Your task to perform on an android device: open app "Nova Launcher" (install if not already installed) Image 0: 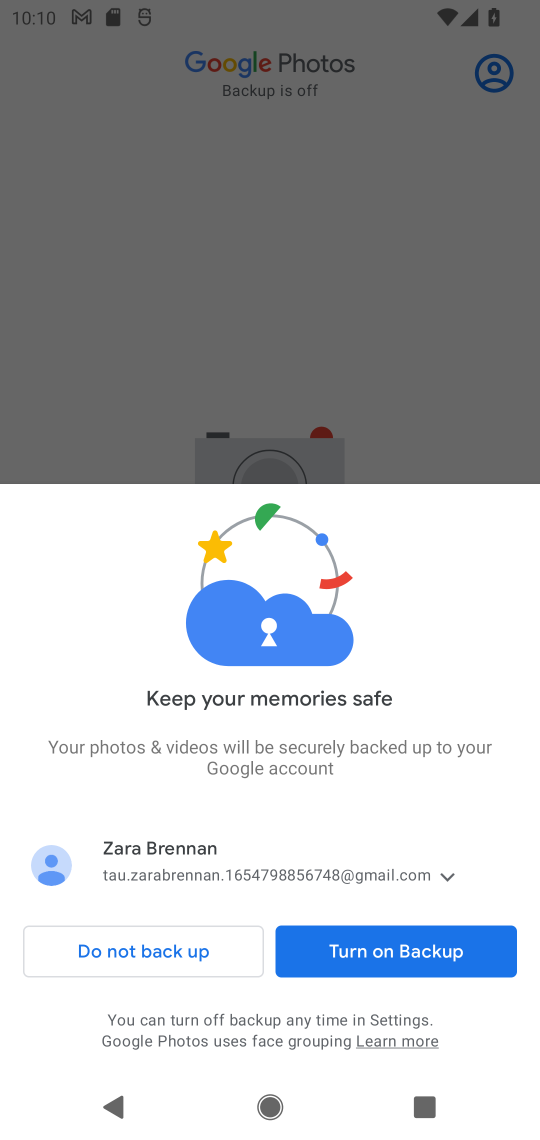
Step 0: press home button
Your task to perform on an android device: open app "Nova Launcher" (install if not already installed) Image 1: 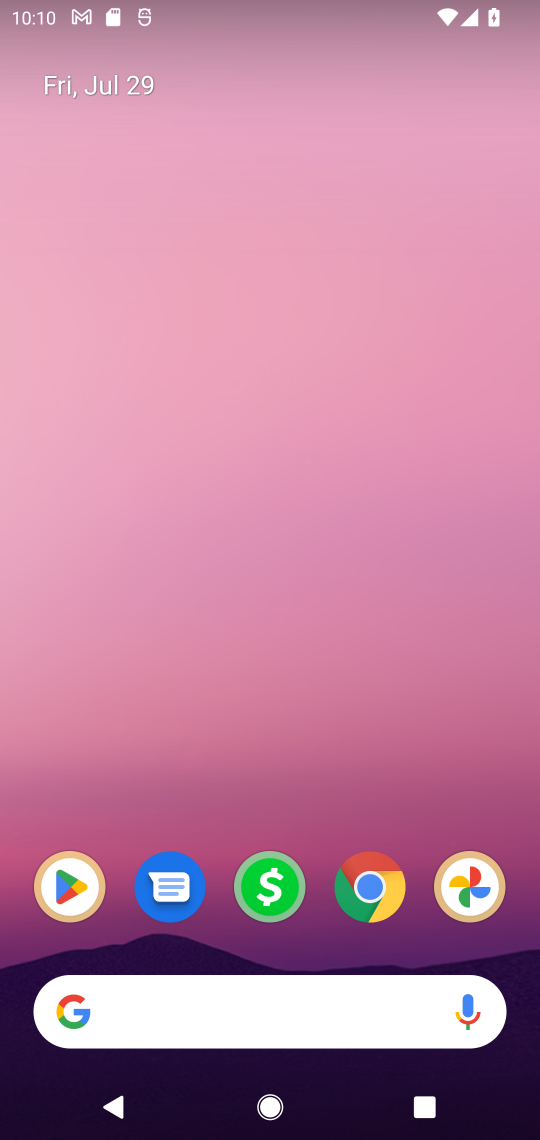
Step 1: click (73, 896)
Your task to perform on an android device: open app "Nova Launcher" (install if not already installed) Image 2: 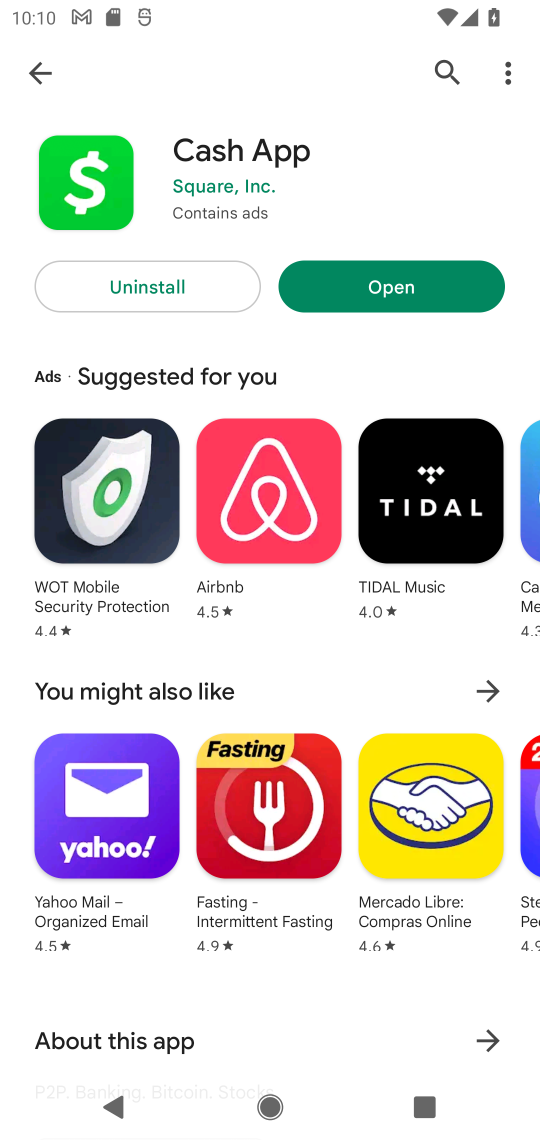
Step 2: click (429, 57)
Your task to perform on an android device: open app "Nova Launcher" (install if not already installed) Image 3: 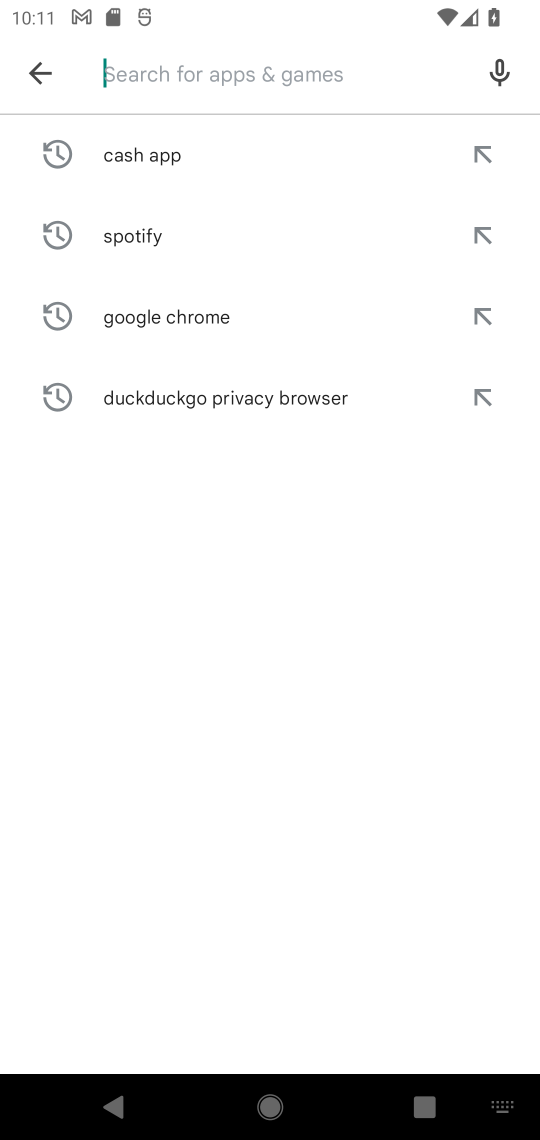
Step 3: type "nova launcher"
Your task to perform on an android device: open app "Nova Launcher" (install if not already installed) Image 4: 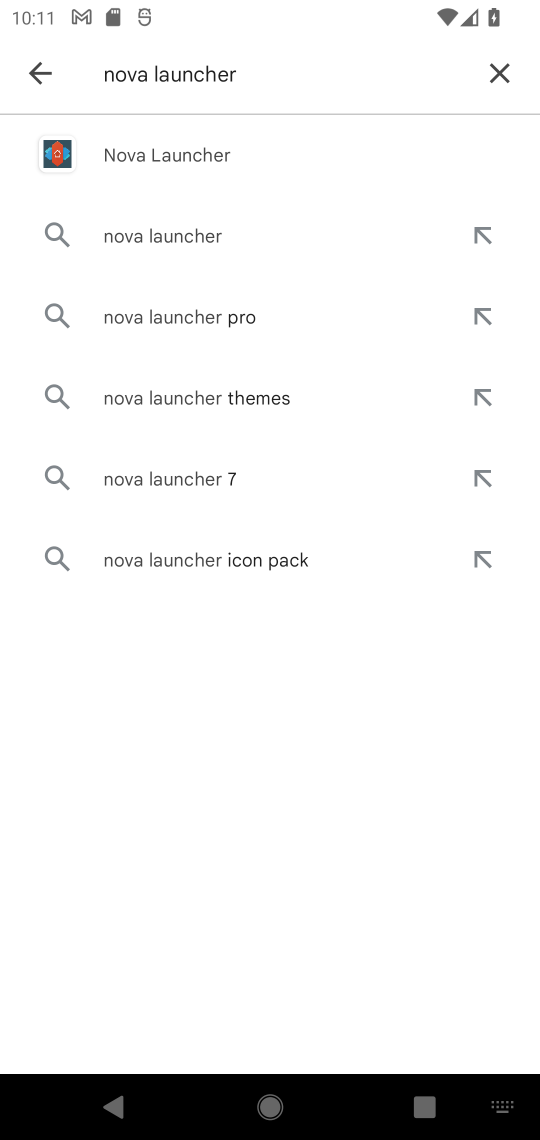
Step 4: click (322, 152)
Your task to perform on an android device: open app "Nova Launcher" (install if not already installed) Image 5: 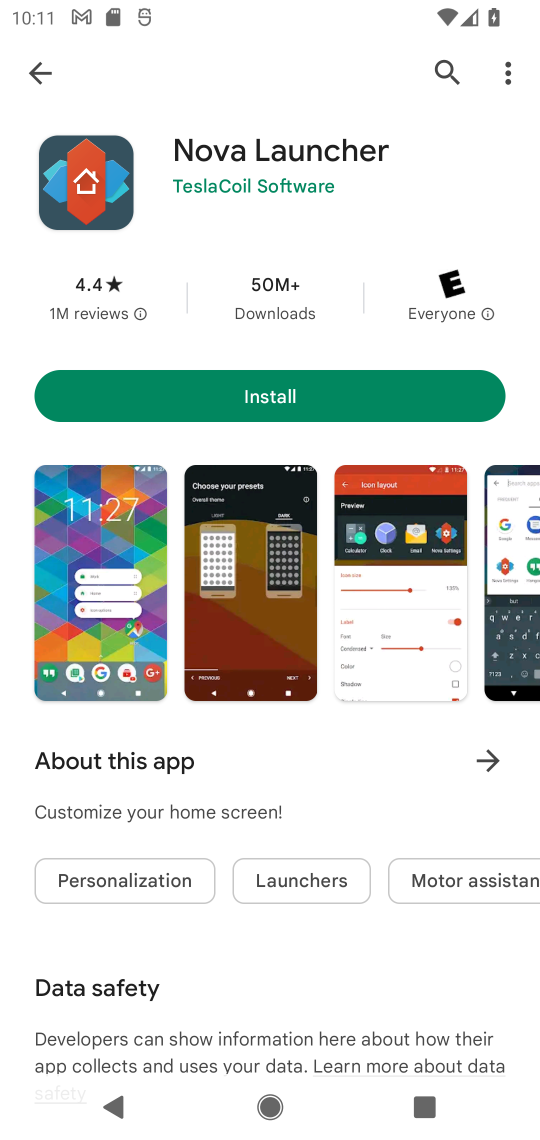
Step 5: click (328, 388)
Your task to perform on an android device: open app "Nova Launcher" (install if not already installed) Image 6: 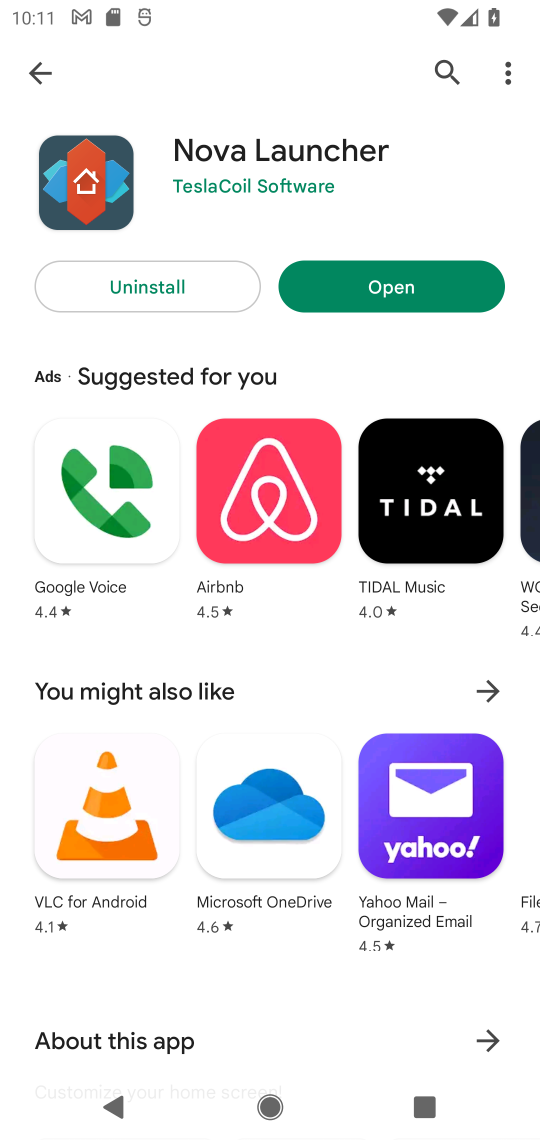
Step 6: click (425, 274)
Your task to perform on an android device: open app "Nova Launcher" (install if not already installed) Image 7: 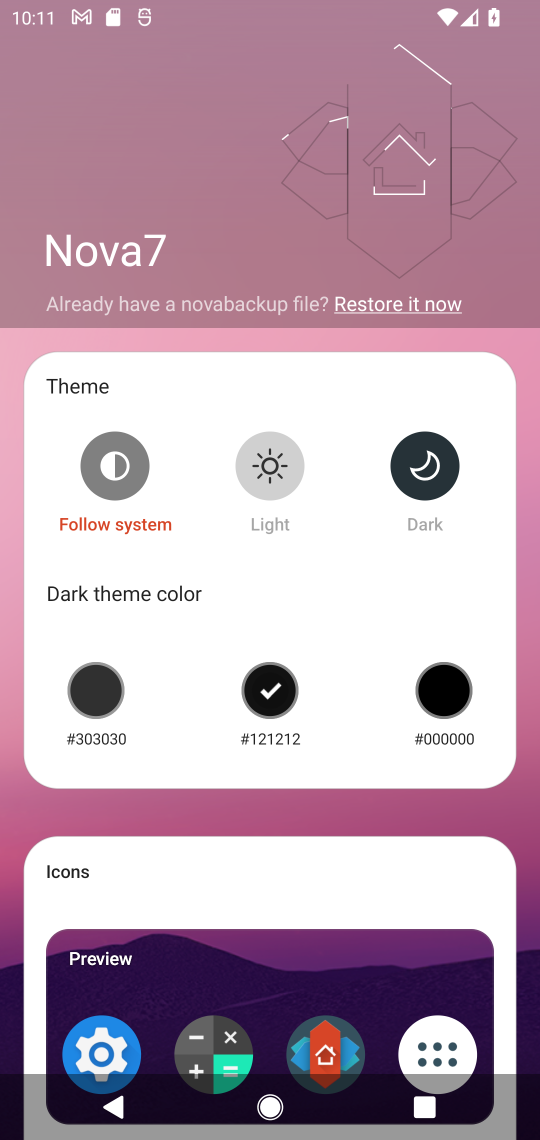
Step 7: task complete